Your task to perform on an android device: turn on improve location accuracy Image 0: 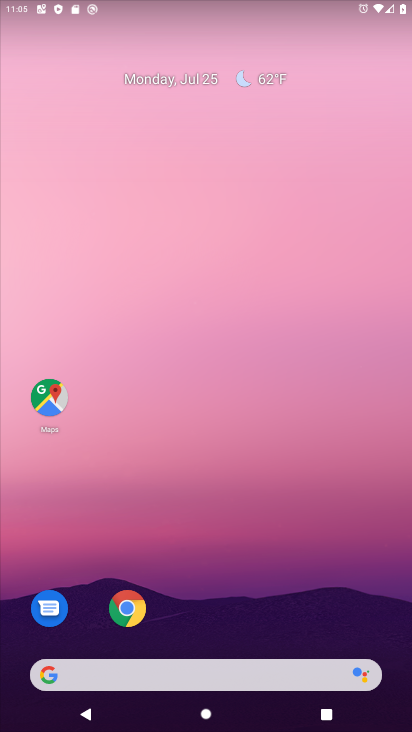
Step 0: drag from (215, 603) to (231, 91)
Your task to perform on an android device: turn on improve location accuracy Image 1: 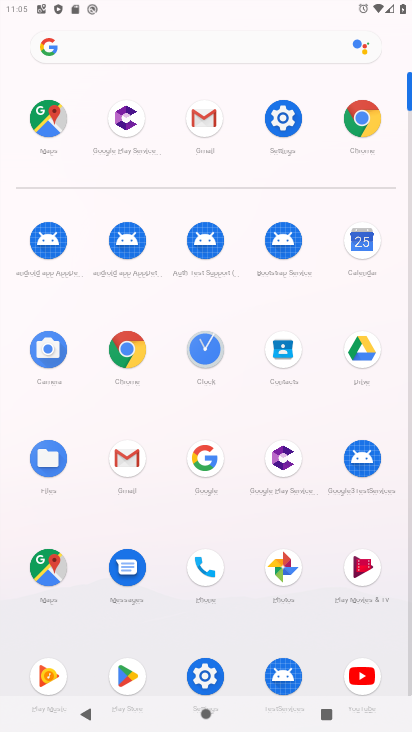
Step 1: click (204, 670)
Your task to perform on an android device: turn on improve location accuracy Image 2: 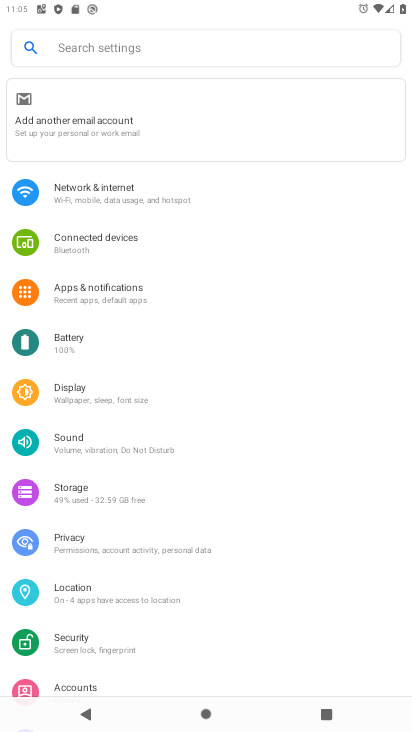
Step 2: click (107, 588)
Your task to perform on an android device: turn on improve location accuracy Image 3: 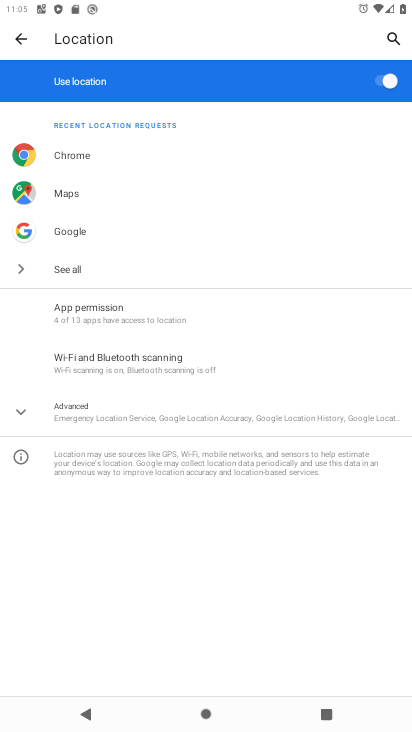
Step 3: click (112, 406)
Your task to perform on an android device: turn on improve location accuracy Image 4: 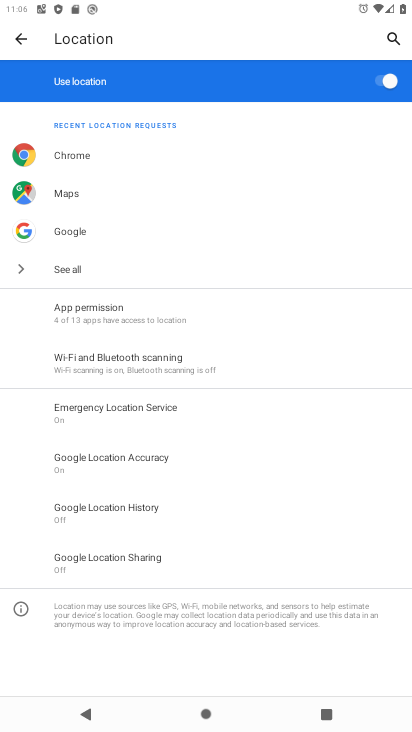
Step 4: click (141, 465)
Your task to perform on an android device: turn on improve location accuracy Image 5: 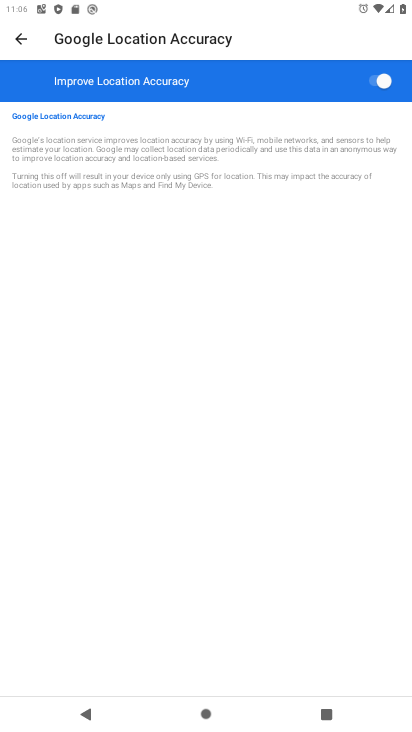
Step 5: task complete